Your task to perform on an android device: turn pop-ups off in chrome Image 0: 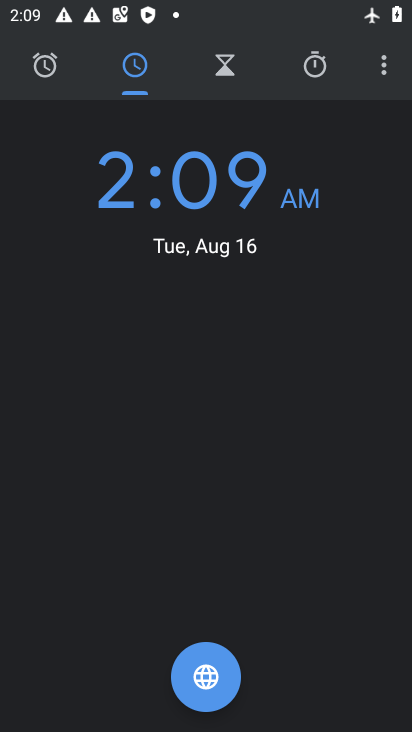
Step 0: press back button
Your task to perform on an android device: turn pop-ups off in chrome Image 1: 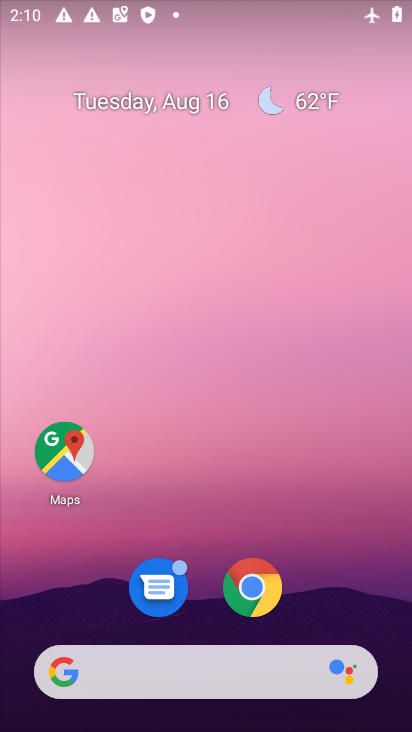
Step 1: click (248, 577)
Your task to perform on an android device: turn pop-ups off in chrome Image 2: 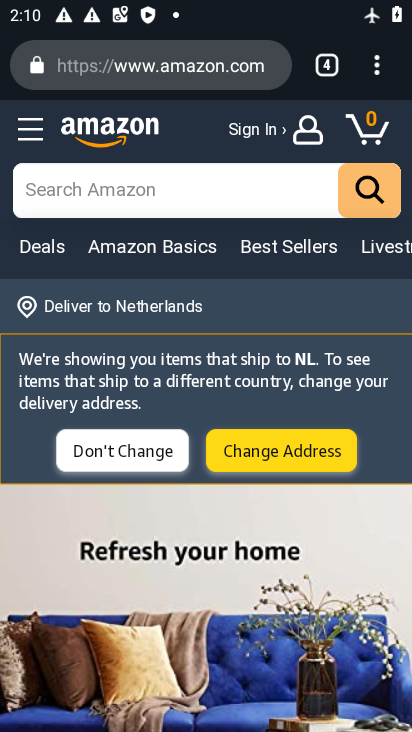
Step 2: drag from (374, 69) to (177, 640)
Your task to perform on an android device: turn pop-ups off in chrome Image 3: 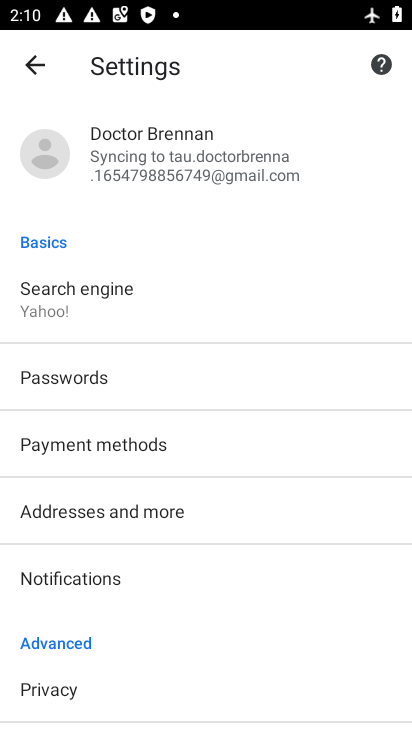
Step 3: drag from (151, 685) to (202, 308)
Your task to perform on an android device: turn pop-ups off in chrome Image 4: 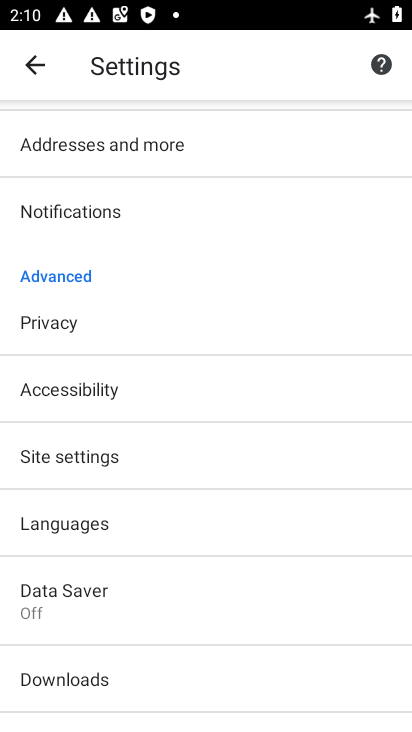
Step 4: click (93, 453)
Your task to perform on an android device: turn pop-ups off in chrome Image 5: 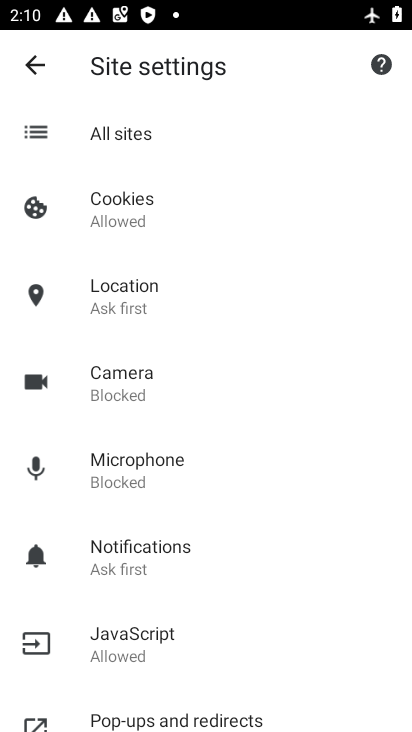
Step 5: click (208, 719)
Your task to perform on an android device: turn pop-ups off in chrome Image 6: 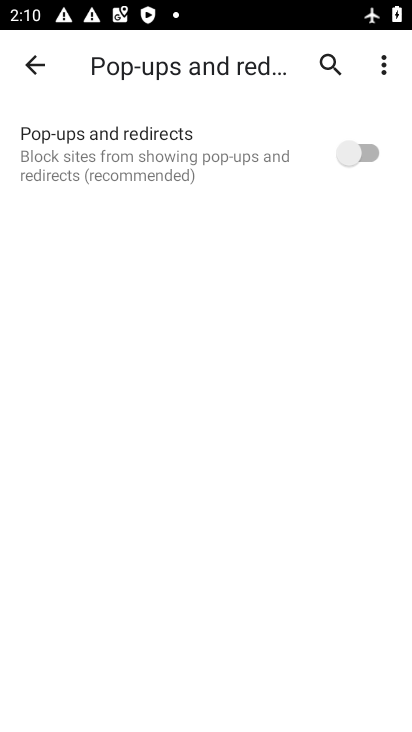
Step 6: task complete